Your task to perform on an android device: toggle notifications settings in the gmail app Image 0: 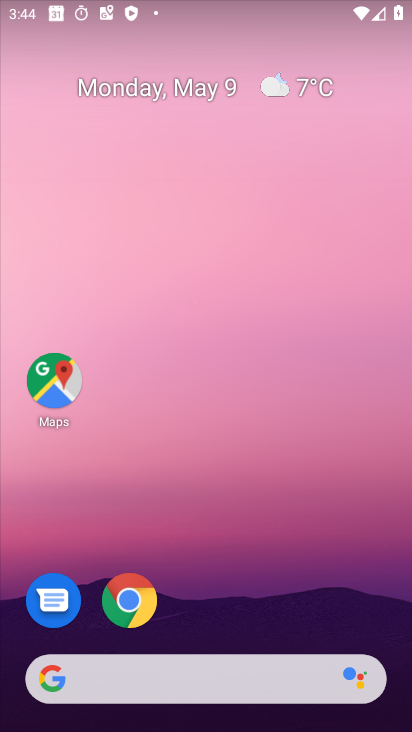
Step 0: drag from (315, 509) to (326, 128)
Your task to perform on an android device: toggle notifications settings in the gmail app Image 1: 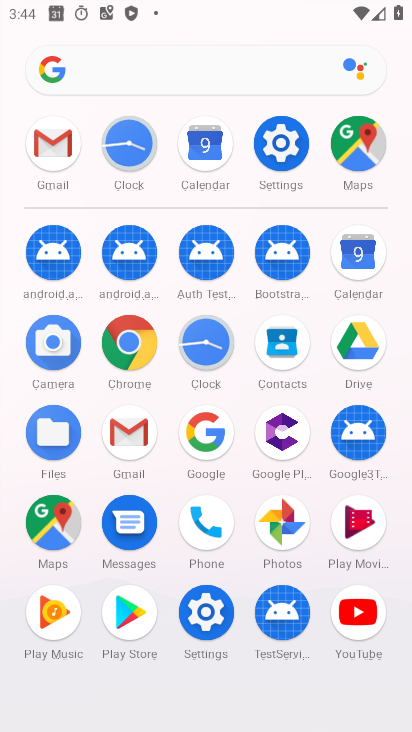
Step 1: click (137, 434)
Your task to perform on an android device: toggle notifications settings in the gmail app Image 2: 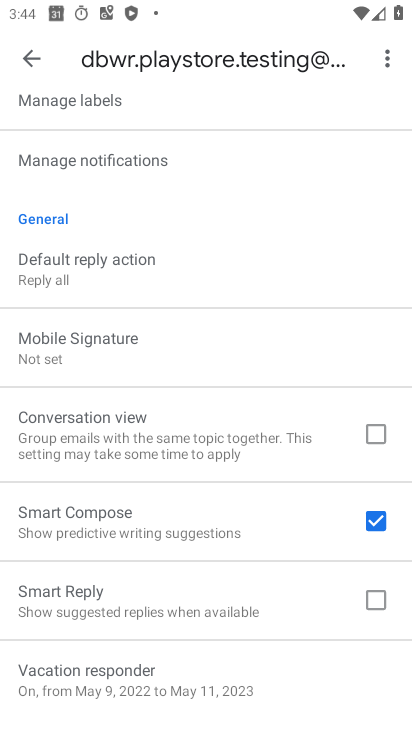
Step 2: drag from (106, 163) to (186, 427)
Your task to perform on an android device: toggle notifications settings in the gmail app Image 3: 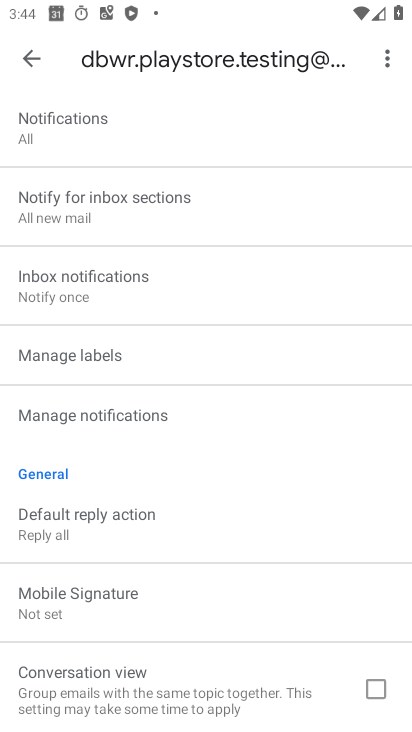
Step 3: click (134, 419)
Your task to perform on an android device: toggle notifications settings in the gmail app Image 4: 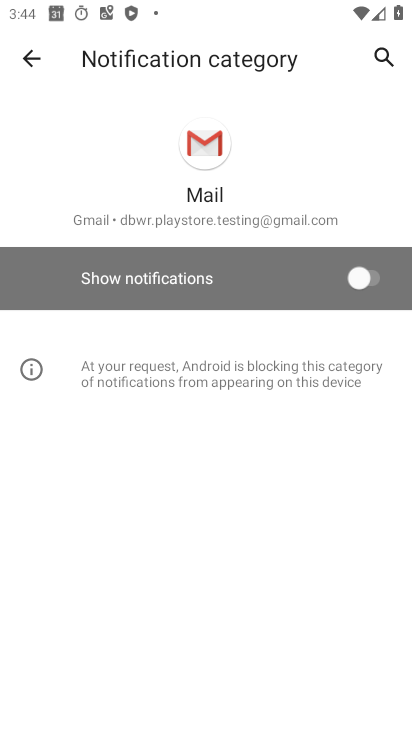
Step 4: click (346, 274)
Your task to perform on an android device: toggle notifications settings in the gmail app Image 5: 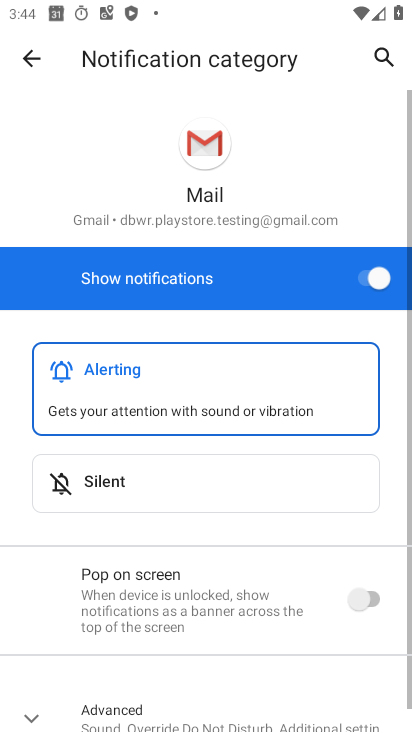
Step 5: task complete